Your task to perform on an android device: Go to location settings Image 0: 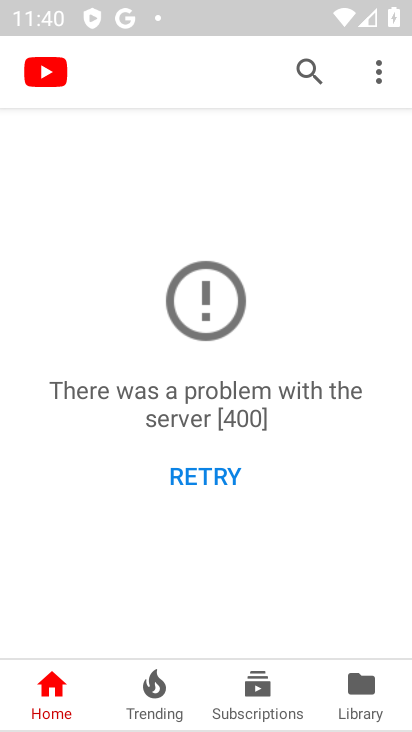
Step 0: press home button
Your task to perform on an android device: Go to location settings Image 1: 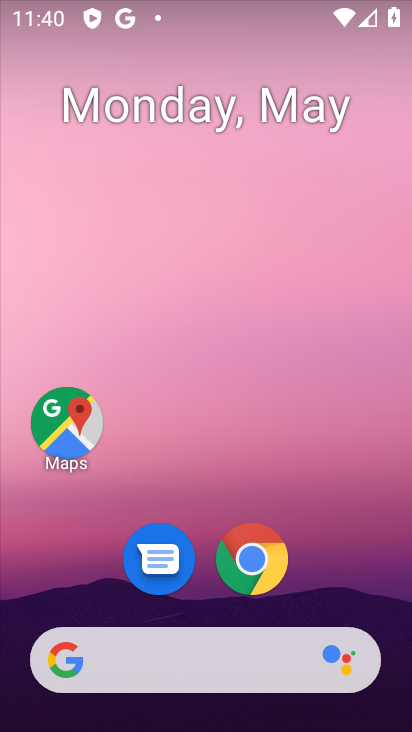
Step 1: drag from (352, 573) to (232, 25)
Your task to perform on an android device: Go to location settings Image 2: 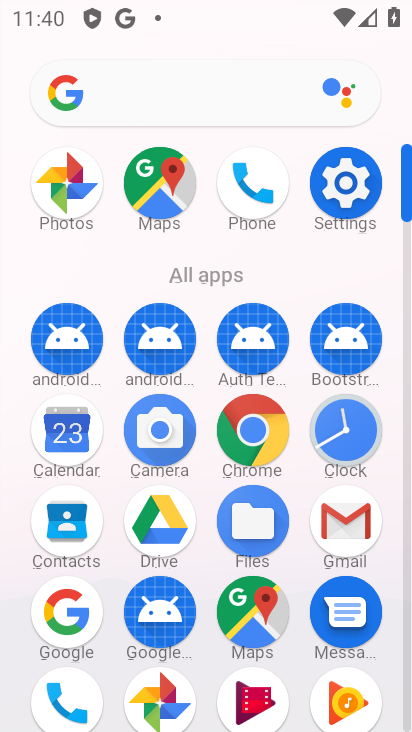
Step 2: click (348, 224)
Your task to perform on an android device: Go to location settings Image 3: 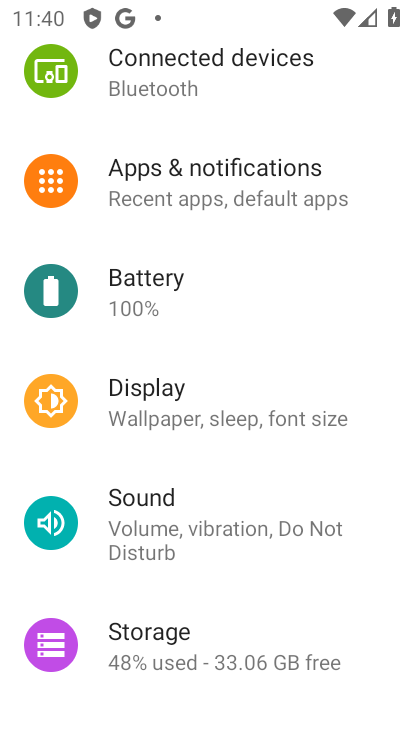
Step 3: drag from (193, 610) to (170, 114)
Your task to perform on an android device: Go to location settings Image 4: 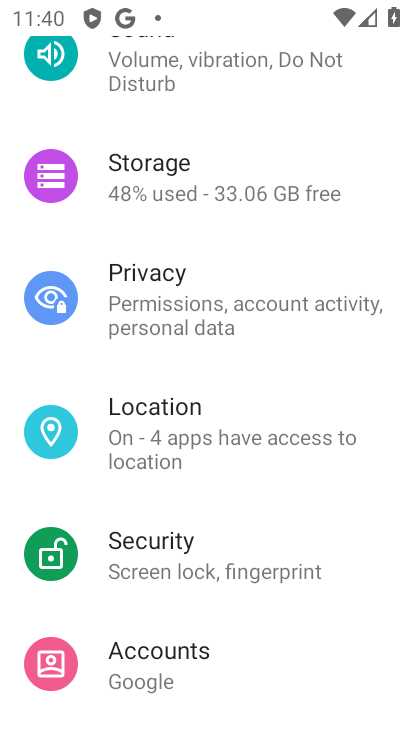
Step 4: click (208, 461)
Your task to perform on an android device: Go to location settings Image 5: 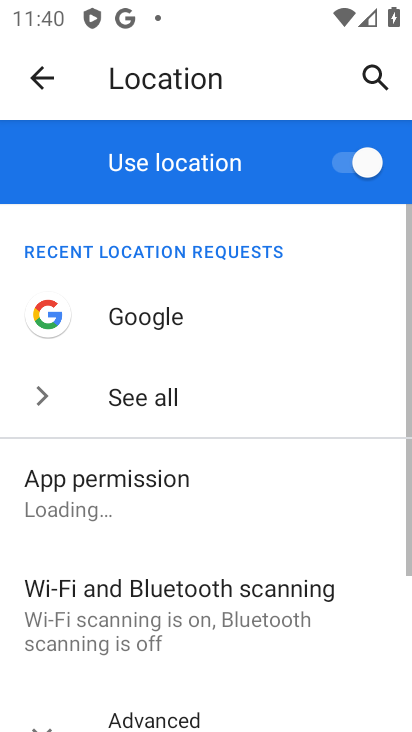
Step 5: task complete